Your task to perform on an android device: turn on priority inbox in the gmail app Image 0: 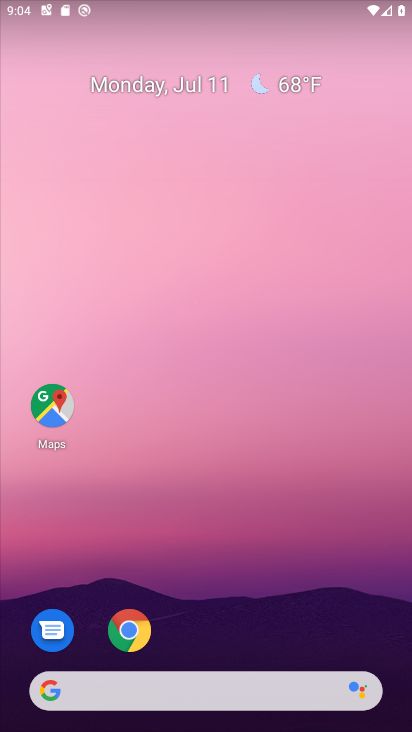
Step 0: drag from (166, 322) to (203, 0)
Your task to perform on an android device: turn on priority inbox in the gmail app Image 1: 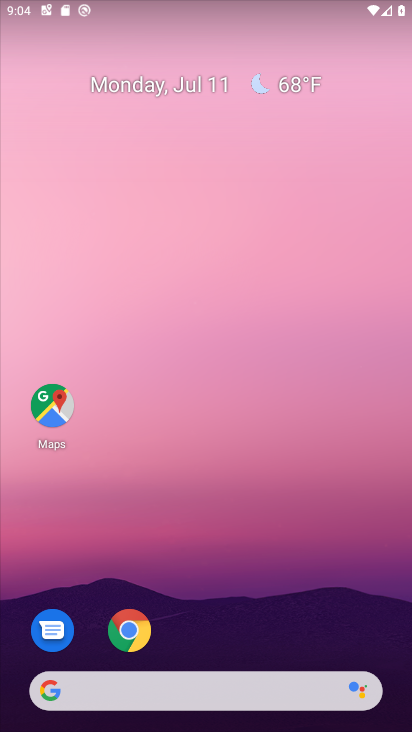
Step 1: drag from (254, 648) to (269, 31)
Your task to perform on an android device: turn on priority inbox in the gmail app Image 2: 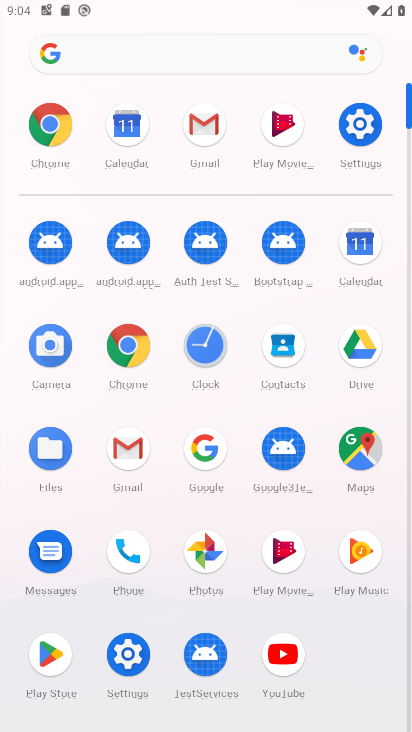
Step 2: click (133, 466)
Your task to perform on an android device: turn on priority inbox in the gmail app Image 3: 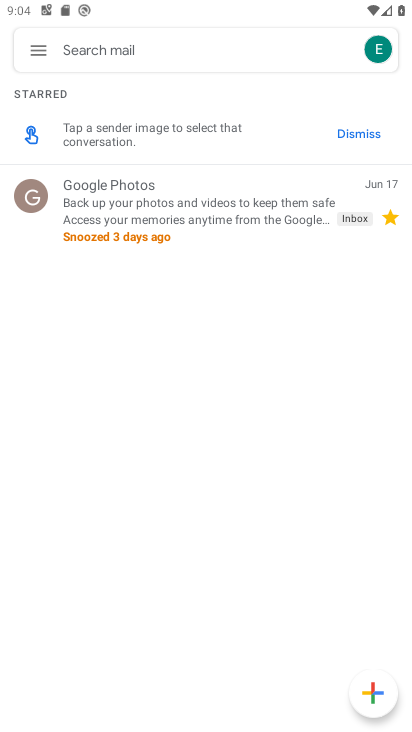
Step 3: click (45, 46)
Your task to perform on an android device: turn on priority inbox in the gmail app Image 4: 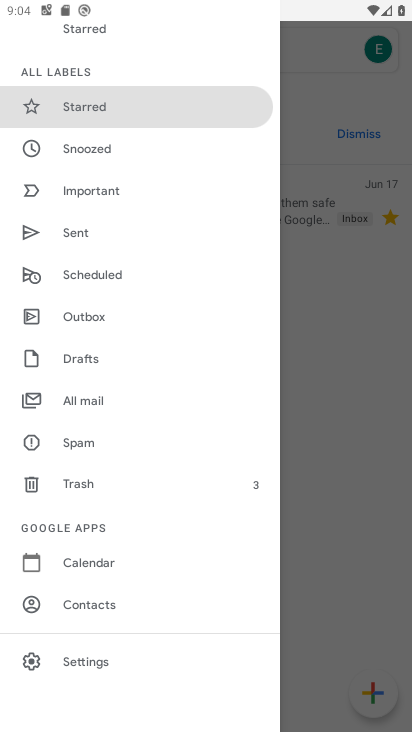
Step 4: click (94, 669)
Your task to perform on an android device: turn on priority inbox in the gmail app Image 5: 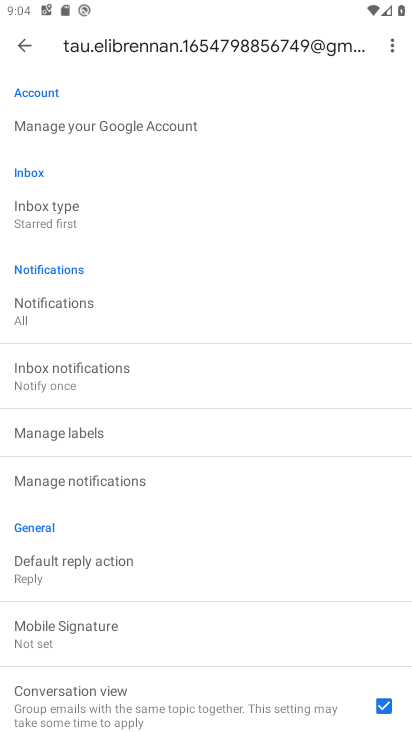
Step 5: click (75, 215)
Your task to perform on an android device: turn on priority inbox in the gmail app Image 6: 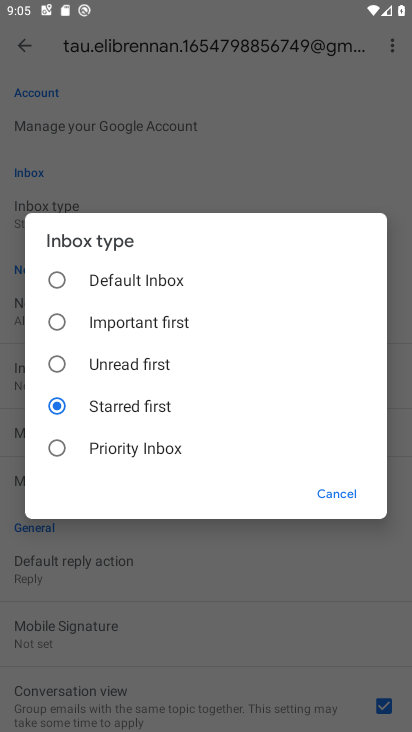
Step 6: click (116, 462)
Your task to perform on an android device: turn on priority inbox in the gmail app Image 7: 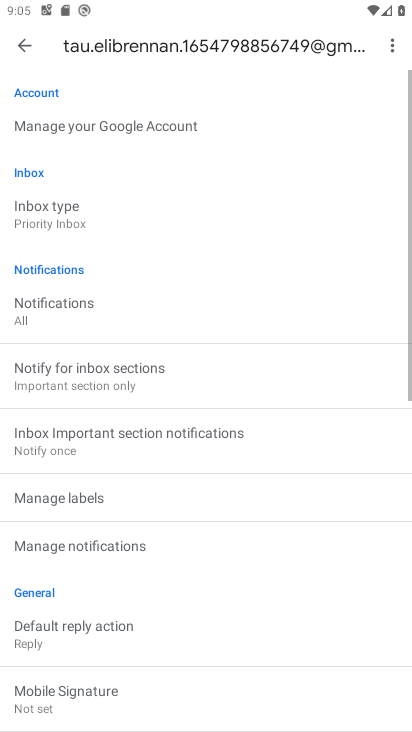
Step 7: task complete